Your task to perform on an android device: Do I have any events this weekend? Image 0: 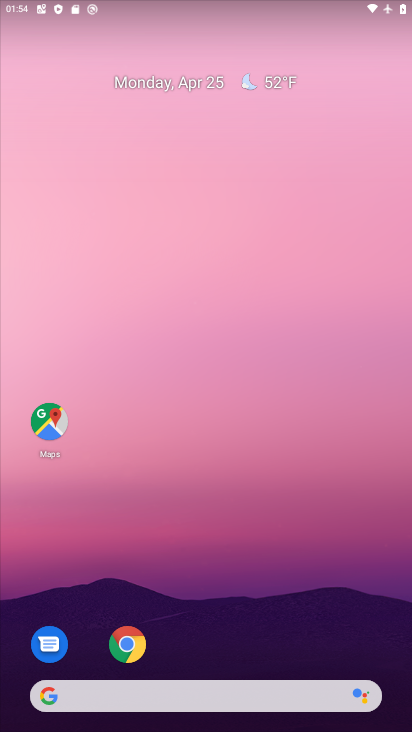
Step 0: drag from (230, 639) to (177, 186)
Your task to perform on an android device: Do I have any events this weekend? Image 1: 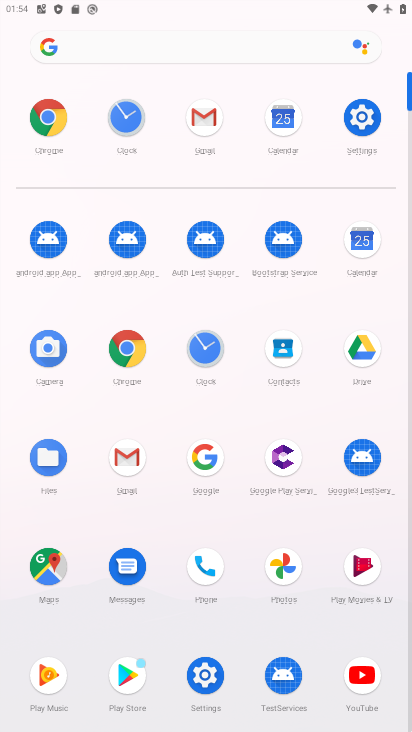
Step 1: click (369, 249)
Your task to perform on an android device: Do I have any events this weekend? Image 2: 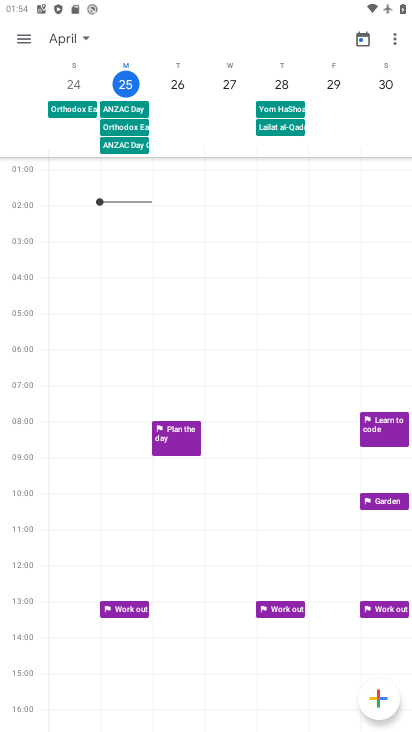
Step 2: task complete